Your task to perform on an android device: Go to Google Image 0: 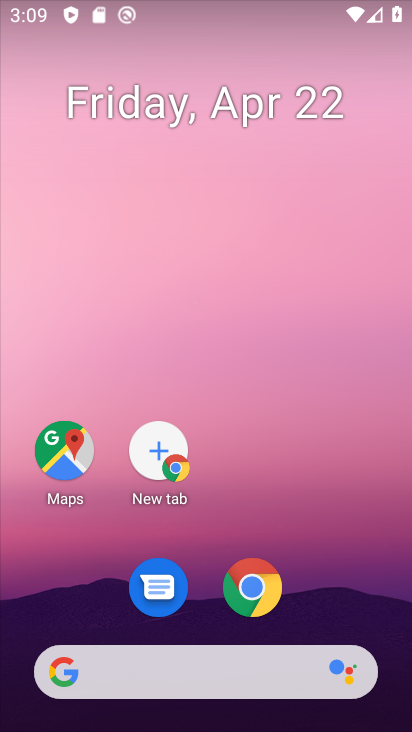
Step 0: click (134, 680)
Your task to perform on an android device: Go to Google Image 1: 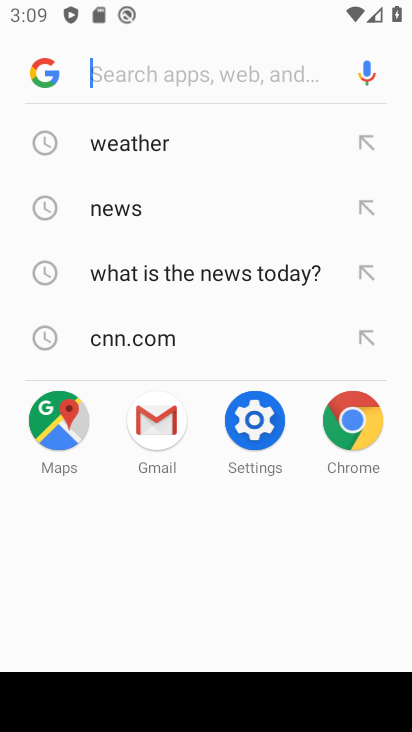
Step 1: task complete